Your task to perform on an android device: Toggle the flashlight Image 0: 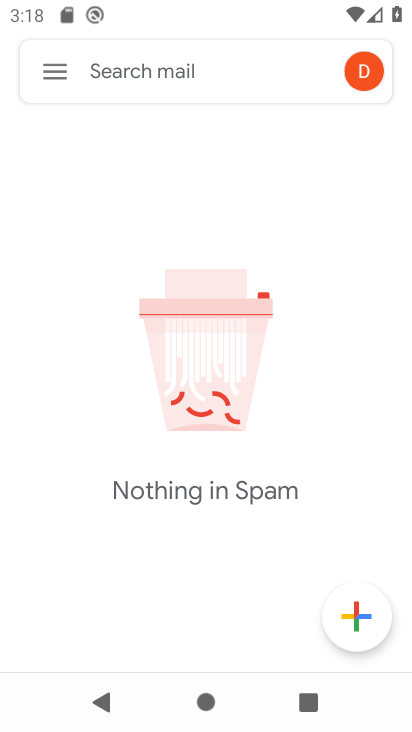
Step 0: drag from (224, 1) to (213, 317)
Your task to perform on an android device: Toggle the flashlight Image 1: 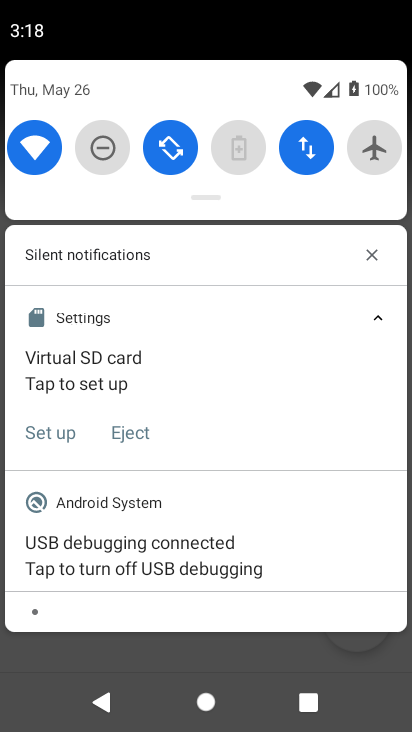
Step 1: drag from (204, 171) to (195, 607)
Your task to perform on an android device: Toggle the flashlight Image 2: 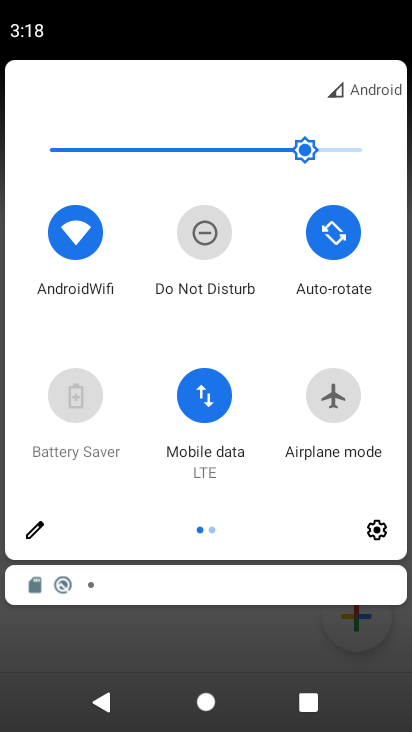
Step 2: drag from (313, 498) to (10, 473)
Your task to perform on an android device: Toggle the flashlight Image 3: 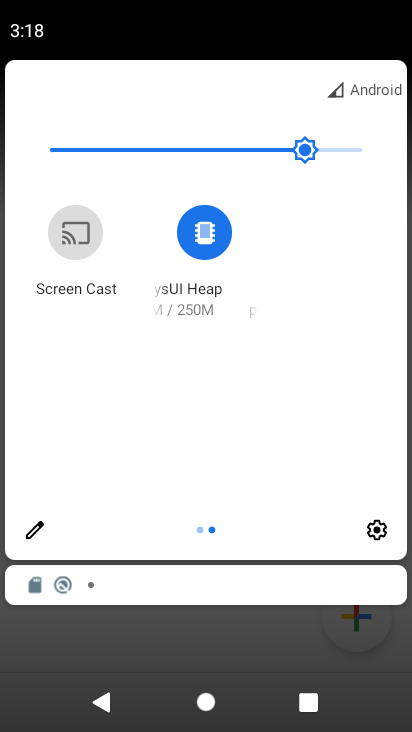
Step 3: click (35, 524)
Your task to perform on an android device: Toggle the flashlight Image 4: 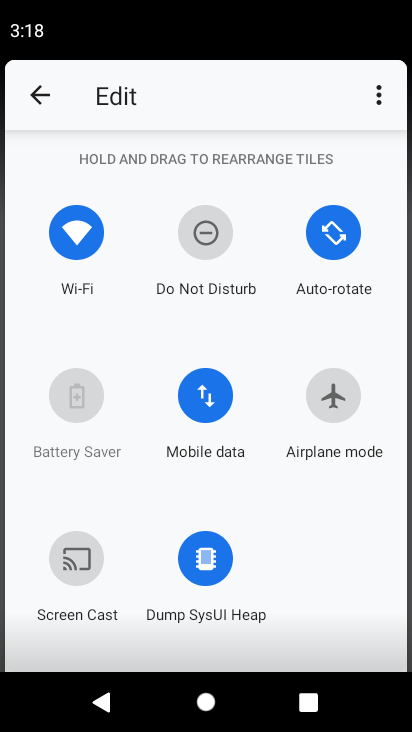
Step 4: task complete